Your task to perform on an android device: open the mobile data screen to see how much data has been used Image 0: 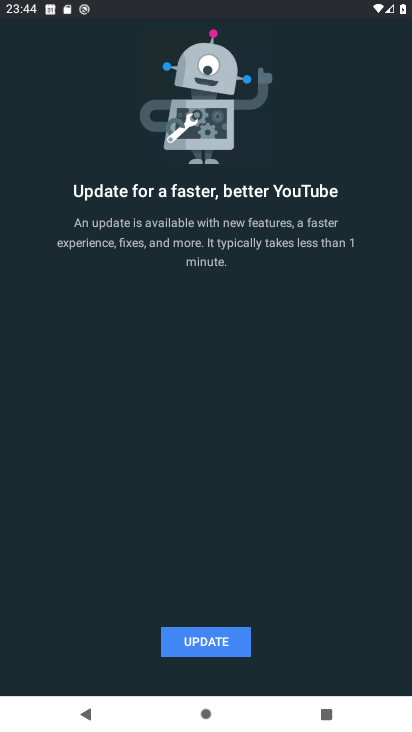
Step 0: press home button
Your task to perform on an android device: open the mobile data screen to see how much data has been used Image 1: 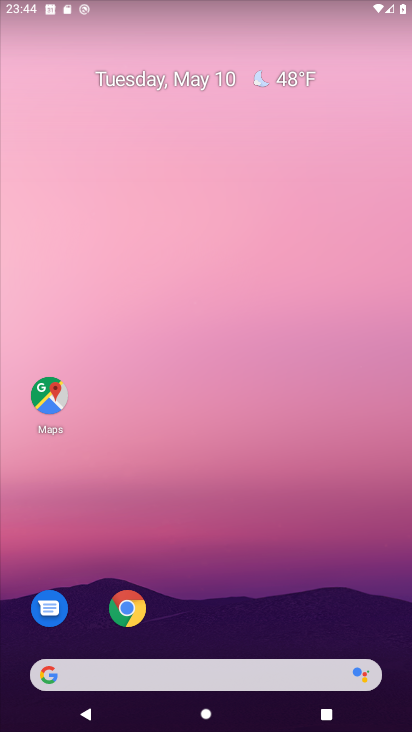
Step 1: drag from (281, 578) to (263, 148)
Your task to perform on an android device: open the mobile data screen to see how much data has been used Image 2: 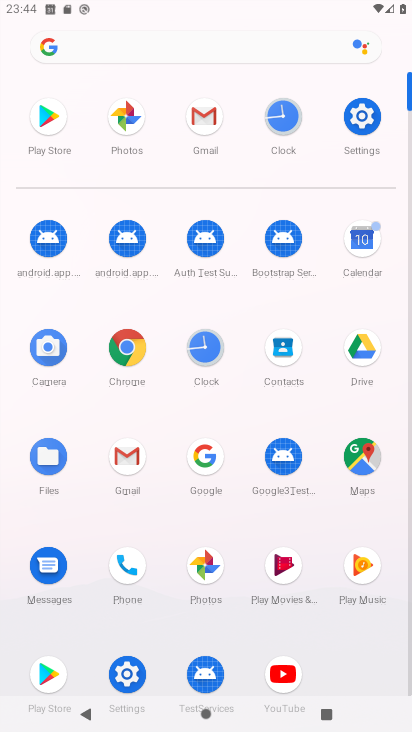
Step 2: click (365, 116)
Your task to perform on an android device: open the mobile data screen to see how much data has been used Image 3: 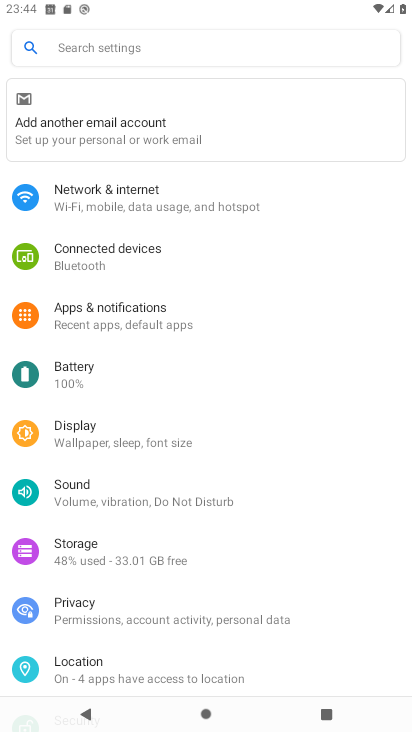
Step 3: click (248, 196)
Your task to perform on an android device: open the mobile data screen to see how much data has been used Image 4: 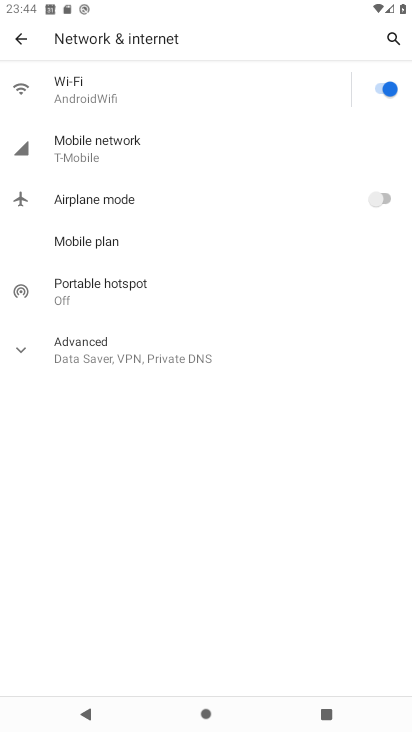
Step 4: click (209, 144)
Your task to perform on an android device: open the mobile data screen to see how much data has been used Image 5: 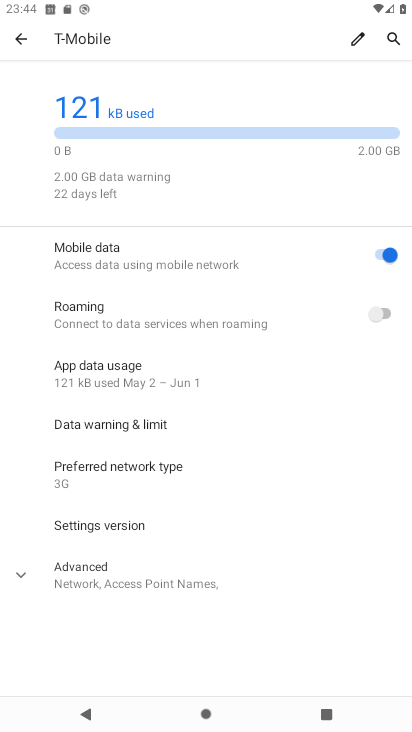
Step 5: click (171, 389)
Your task to perform on an android device: open the mobile data screen to see how much data has been used Image 6: 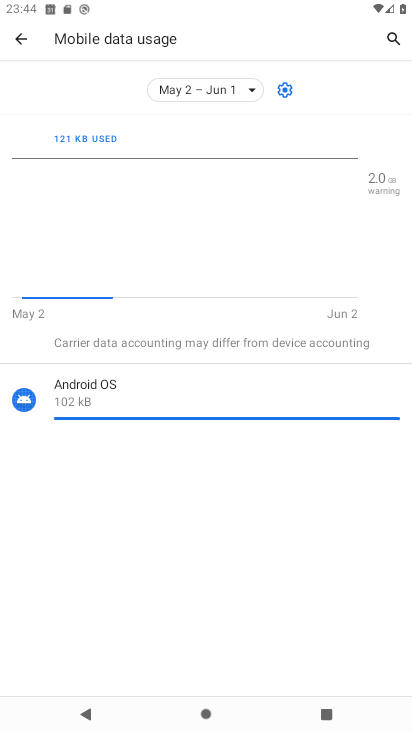
Step 6: task complete